Your task to perform on an android device: change notifications settings Image 0: 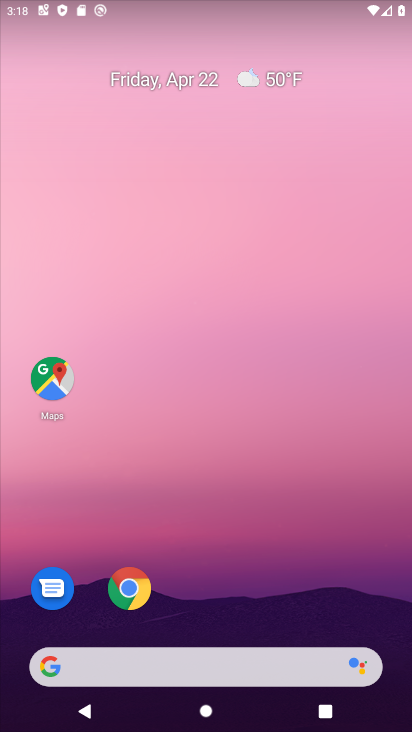
Step 0: drag from (352, 605) to (357, 130)
Your task to perform on an android device: change notifications settings Image 1: 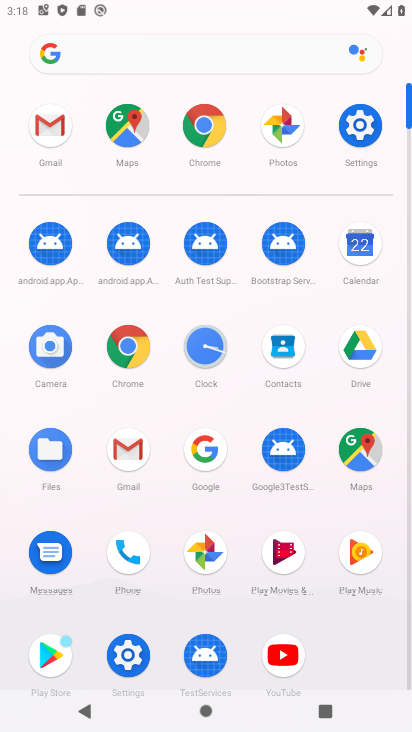
Step 1: click (357, 129)
Your task to perform on an android device: change notifications settings Image 2: 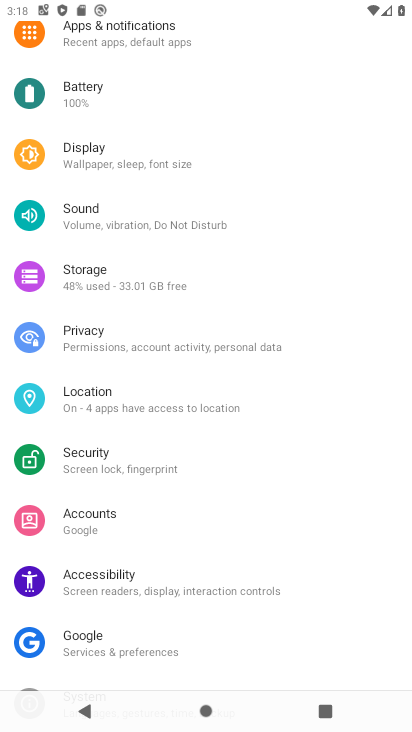
Step 2: drag from (346, 246) to (336, 429)
Your task to perform on an android device: change notifications settings Image 3: 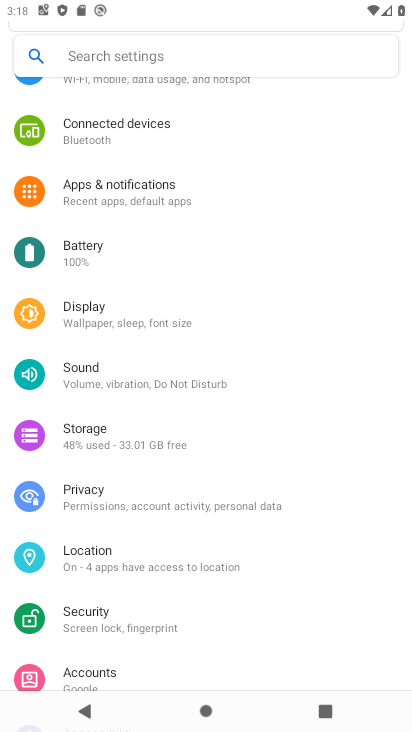
Step 3: drag from (350, 214) to (350, 382)
Your task to perform on an android device: change notifications settings Image 4: 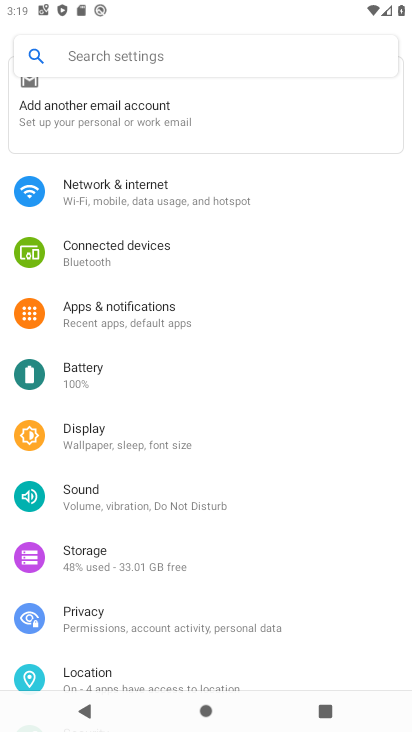
Step 4: click (121, 310)
Your task to perform on an android device: change notifications settings Image 5: 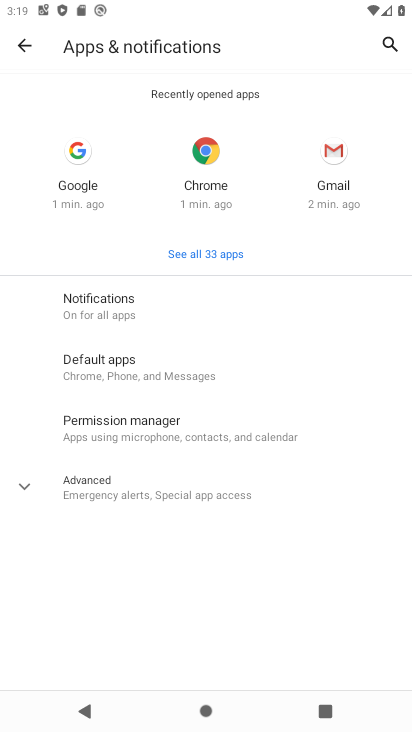
Step 5: click (118, 316)
Your task to perform on an android device: change notifications settings Image 6: 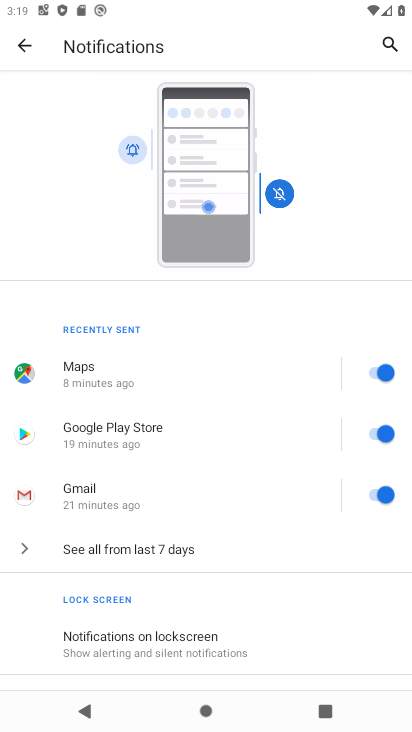
Step 6: click (382, 434)
Your task to perform on an android device: change notifications settings Image 7: 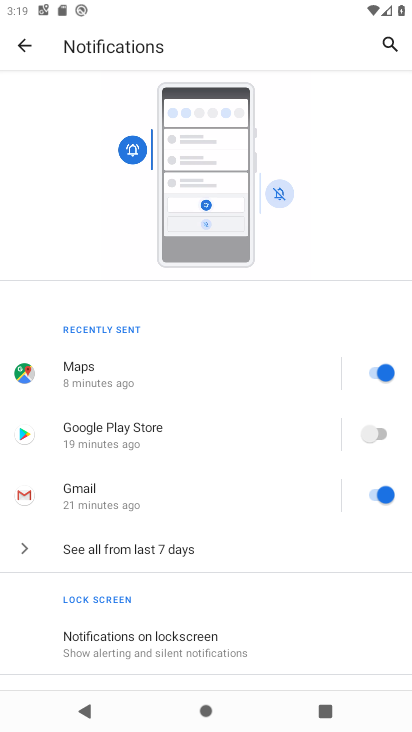
Step 7: click (385, 369)
Your task to perform on an android device: change notifications settings Image 8: 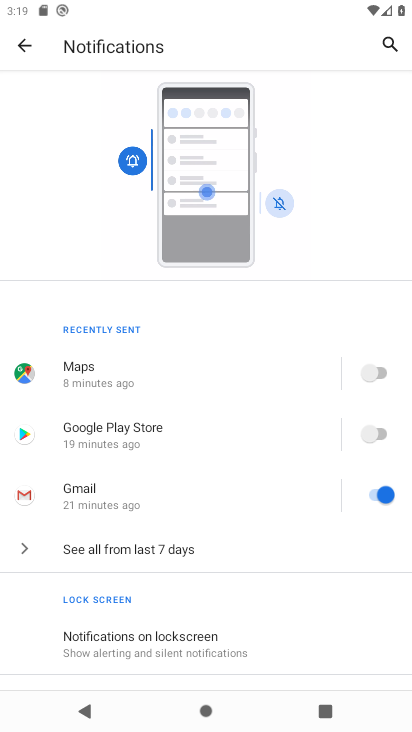
Step 8: click (386, 504)
Your task to perform on an android device: change notifications settings Image 9: 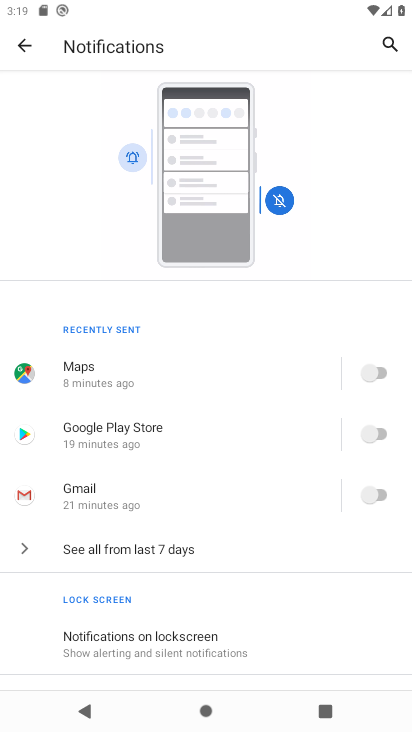
Step 9: task complete